Your task to perform on an android device: turn off picture-in-picture Image 0: 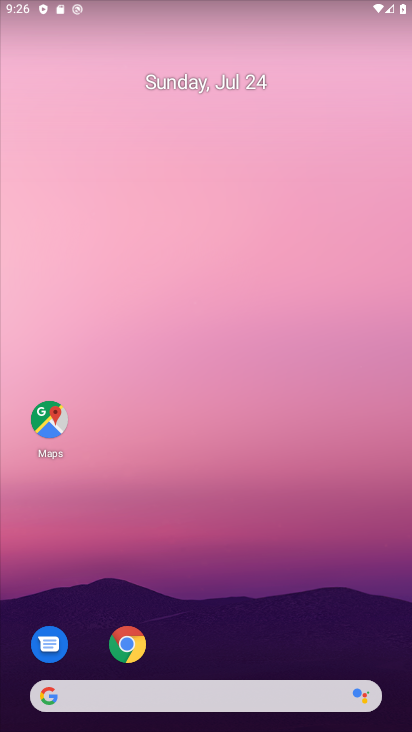
Step 0: drag from (306, 564) to (346, 8)
Your task to perform on an android device: turn off picture-in-picture Image 1: 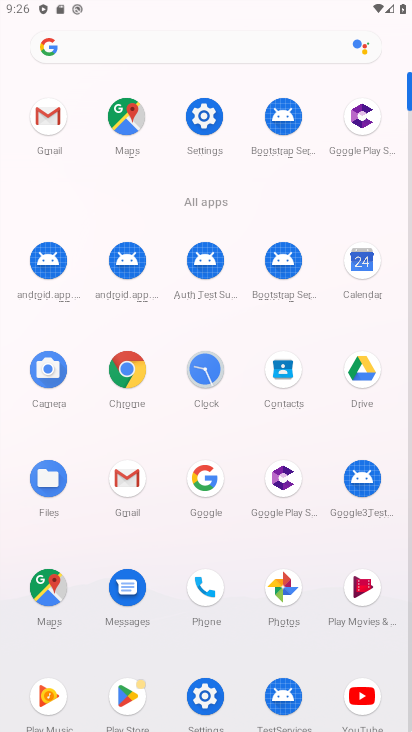
Step 1: click (122, 382)
Your task to perform on an android device: turn off picture-in-picture Image 2: 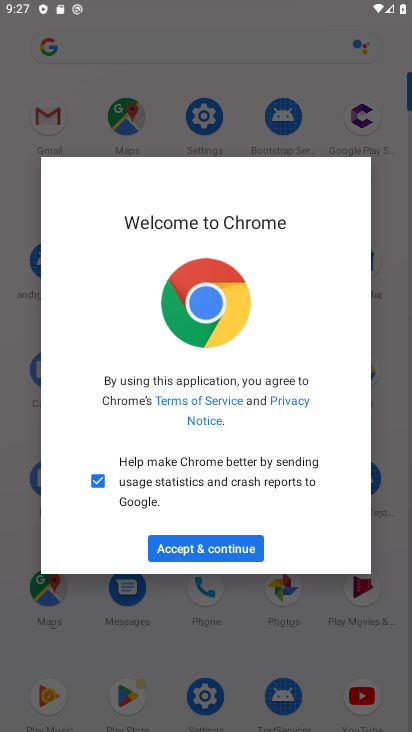
Step 2: press home button
Your task to perform on an android device: turn off picture-in-picture Image 3: 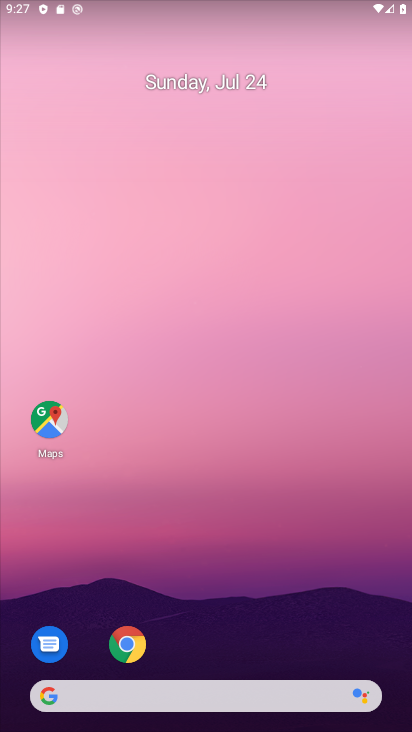
Step 3: drag from (249, 585) to (109, 118)
Your task to perform on an android device: turn off picture-in-picture Image 4: 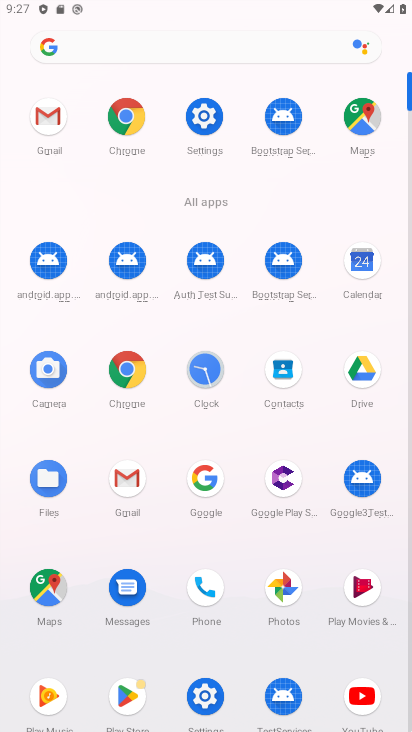
Step 4: click (139, 377)
Your task to perform on an android device: turn off picture-in-picture Image 5: 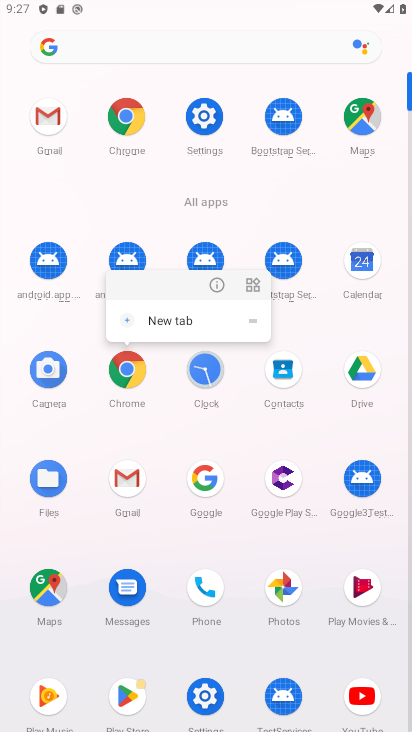
Step 5: click (215, 291)
Your task to perform on an android device: turn off picture-in-picture Image 6: 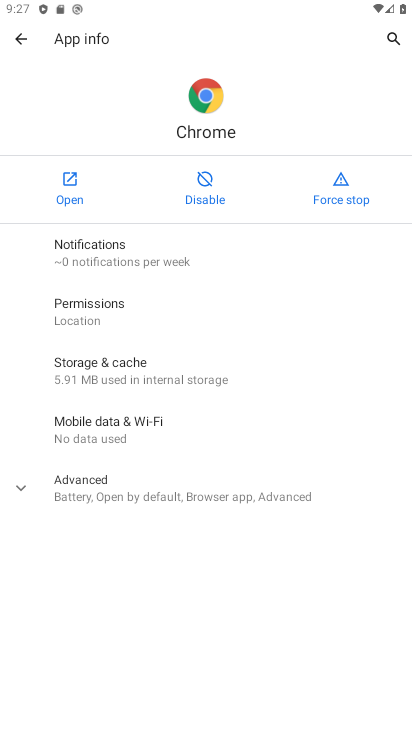
Step 6: click (177, 491)
Your task to perform on an android device: turn off picture-in-picture Image 7: 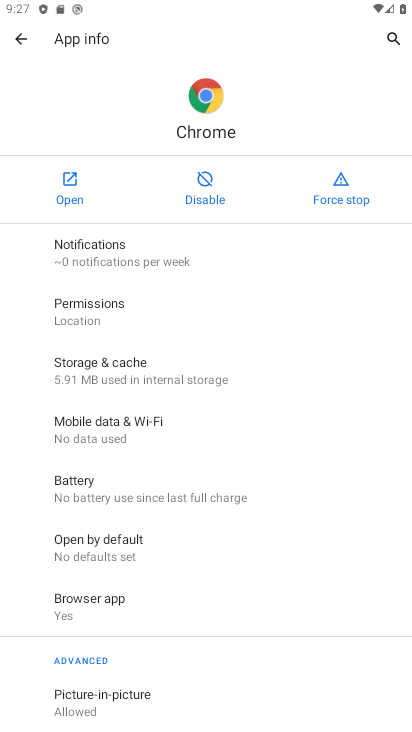
Step 7: click (96, 688)
Your task to perform on an android device: turn off picture-in-picture Image 8: 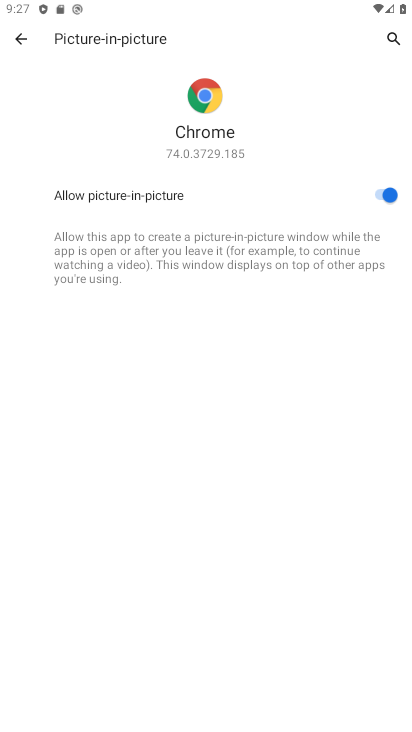
Step 8: click (392, 194)
Your task to perform on an android device: turn off picture-in-picture Image 9: 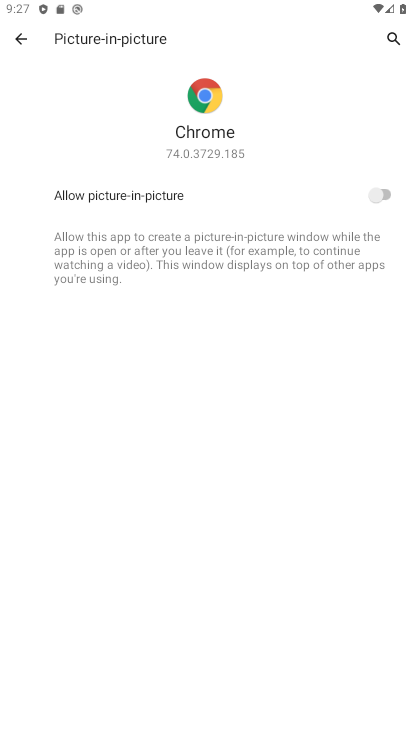
Step 9: task complete